Your task to perform on an android device: allow notifications from all sites in the chrome app Image 0: 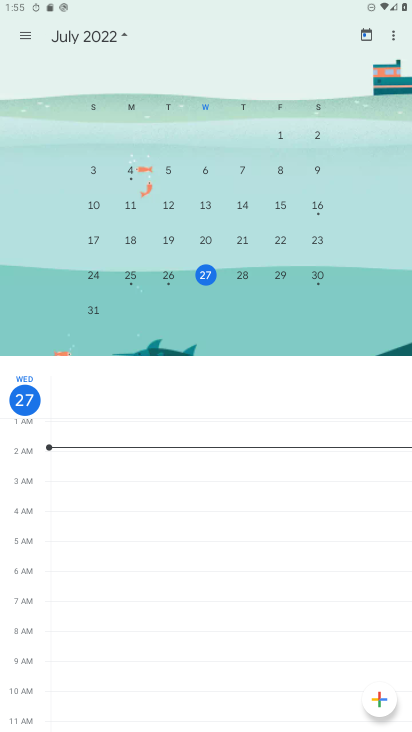
Step 0: press home button
Your task to perform on an android device: allow notifications from all sites in the chrome app Image 1: 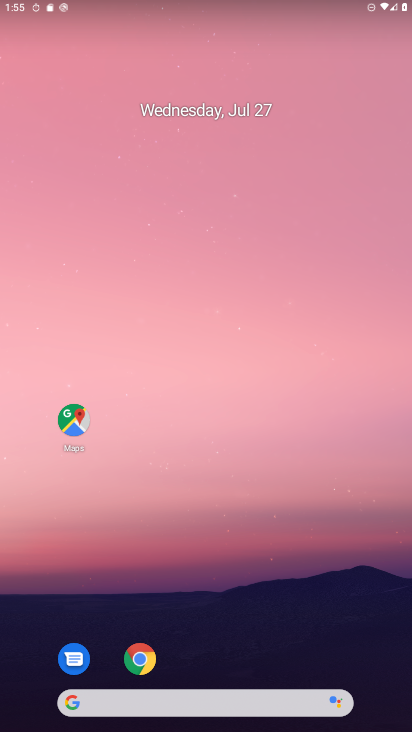
Step 1: drag from (300, 613) to (302, 158)
Your task to perform on an android device: allow notifications from all sites in the chrome app Image 2: 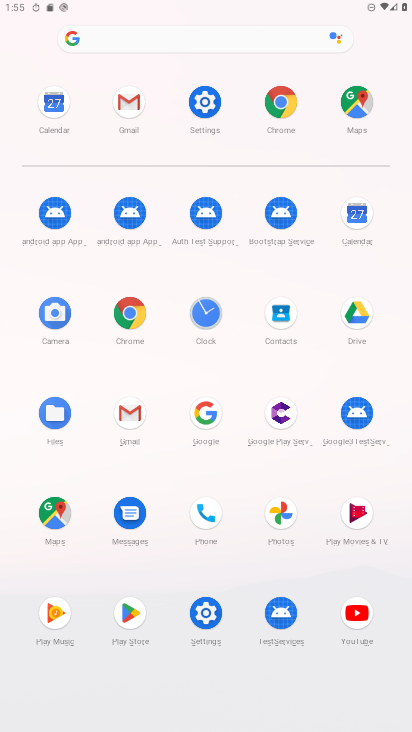
Step 2: click (130, 316)
Your task to perform on an android device: allow notifications from all sites in the chrome app Image 3: 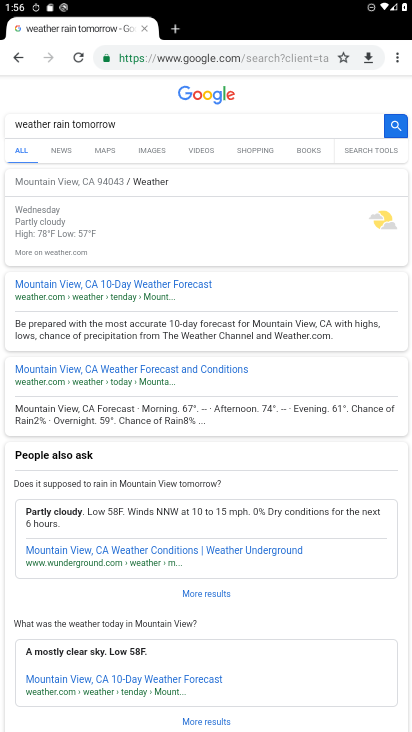
Step 3: drag from (395, 48) to (286, 351)
Your task to perform on an android device: allow notifications from all sites in the chrome app Image 4: 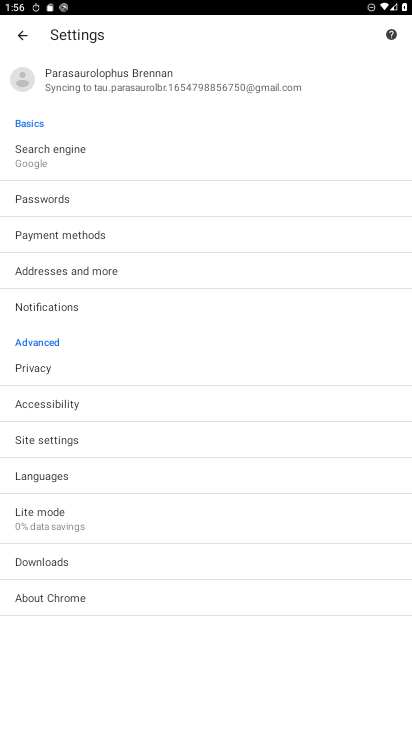
Step 4: click (58, 302)
Your task to perform on an android device: allow notifications from all sites in the chrome app Image 5: 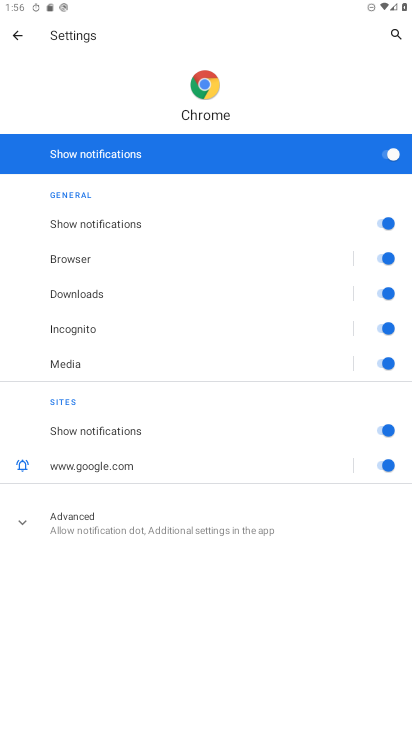
Step 5: task complete